Your task to perform on an android device: Show me the alarms in the clock app Image 0: 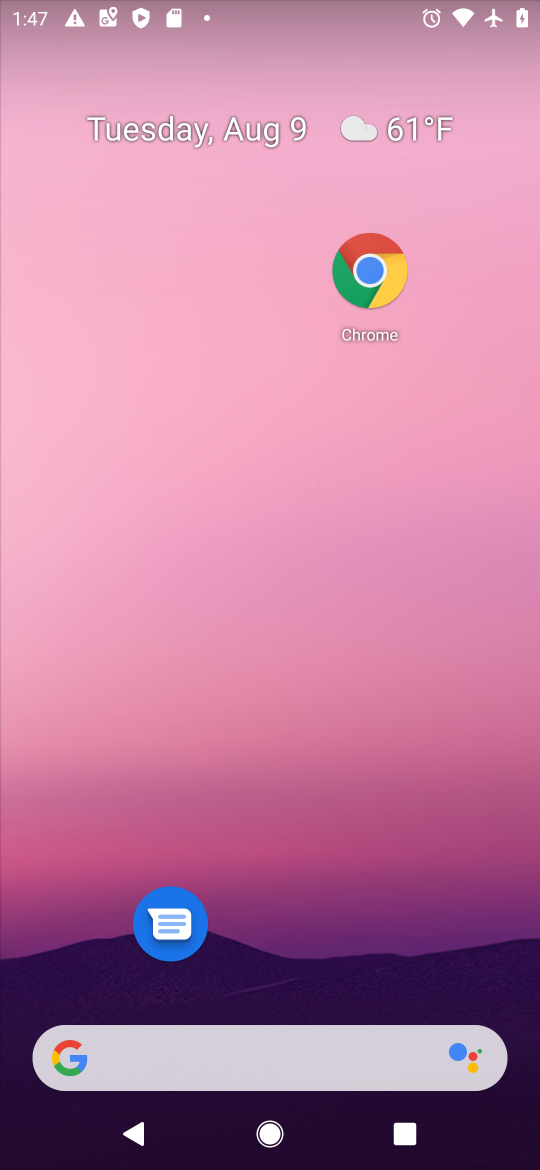
Step 0: drag from (368, 998) to (193, 63)
Your task to perform on an android device: Show me the alarms in the clock app Image 1: 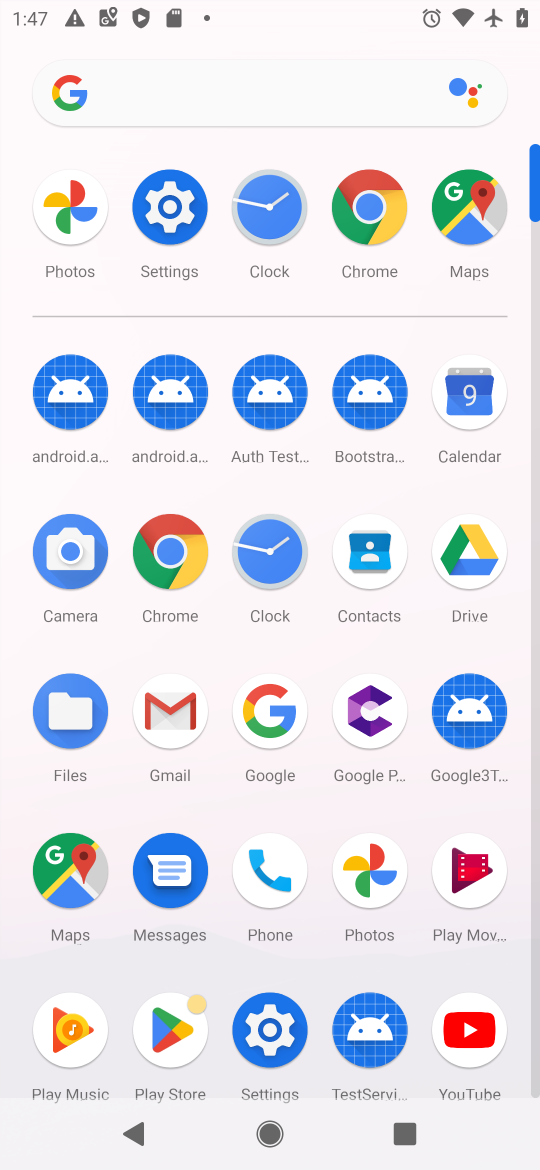
Step 1: click (286, 257)
Your task to perform on an android device: Show me the alarms in the clock app Image 2: 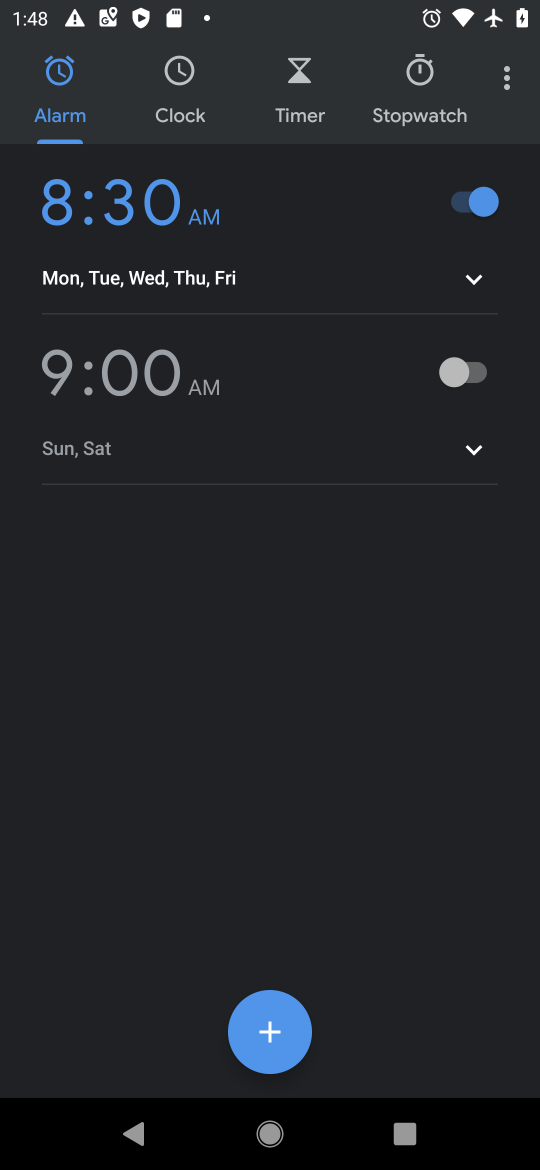
Step 2: task complete